Your task to perform on an android device: check the backup settings in the google photos Image 0: 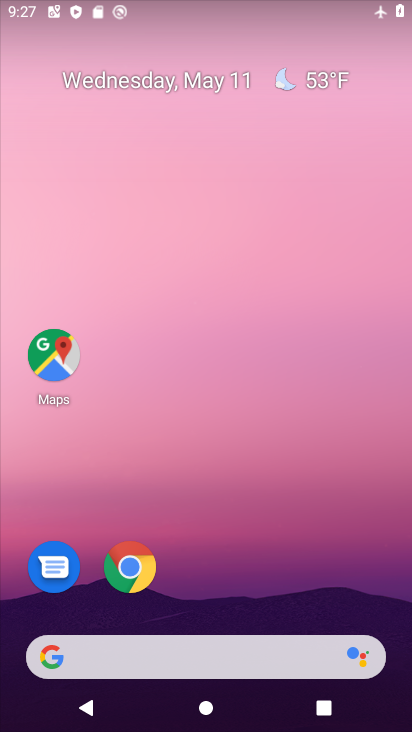
Step 0: drag from (263, 691) to (217, 176)
Your task to perform on an android device: check the backup settings in the google photos Image 1: 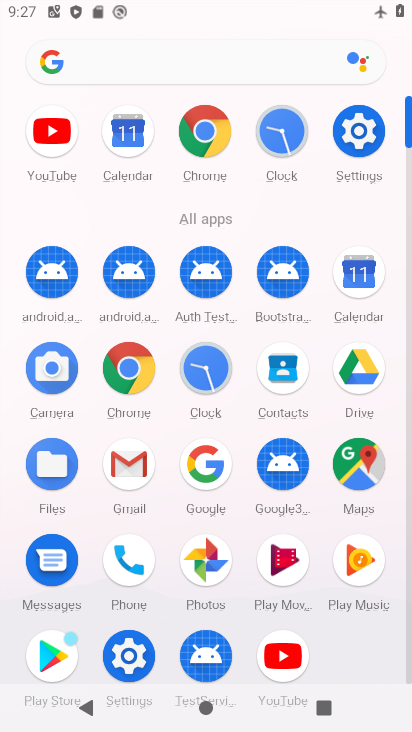
Step 1: click (201, 548)
Your task to perform on an android device: check the backup settings in the google photos Image 2: 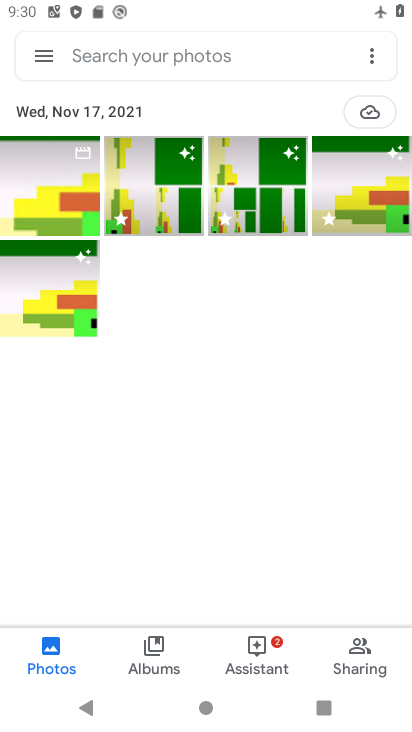
Step 2: click (43, 56)
Your task to perform on an android device: check the backup settings in the google photos Image 3: 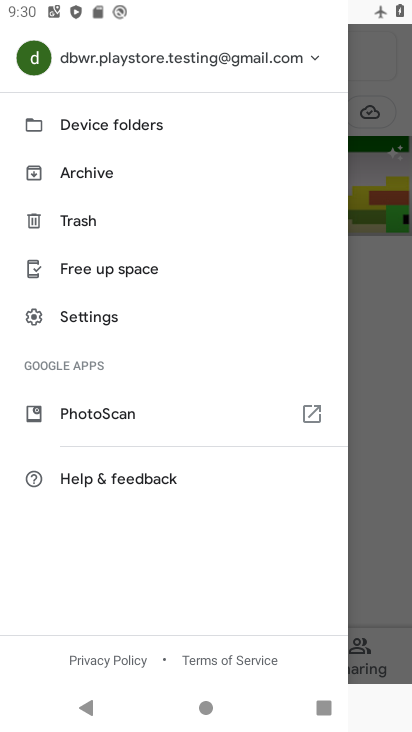
Step 3: click (87, 319)
Your task to perform on an android device: check the backup settings in the google photos Image 4: 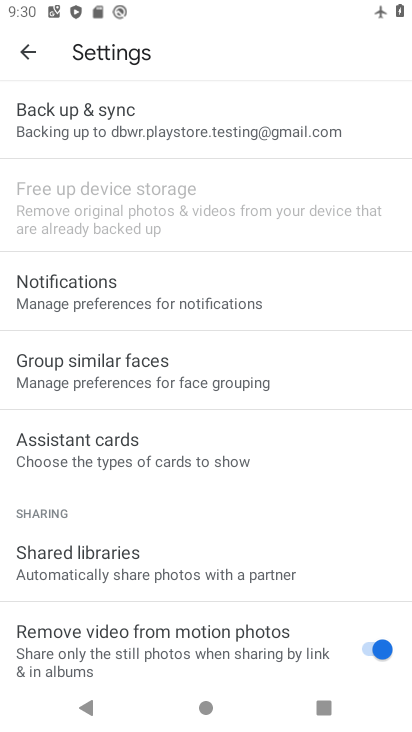
Step 4: click (174, 115)
Your task to perform on an android device: check the backup settings in the google photos Image 5: 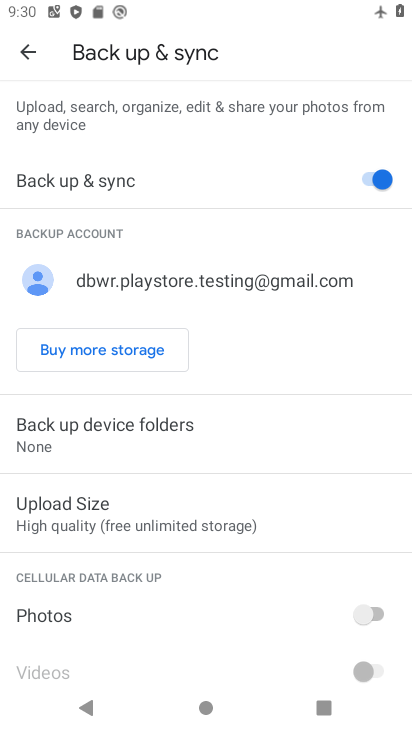
Step 5: task complete